Your task to perform on an android device: open app "eBay: The shopping marketplace" (install if not already installed) Image 0: 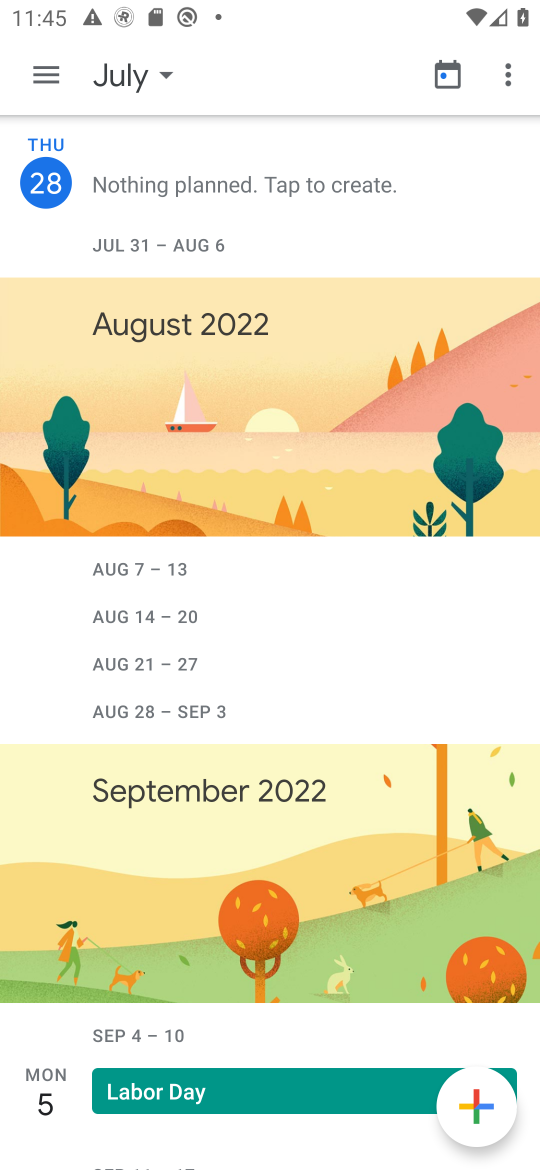
Step 0: press home button
Your task to perform on an android device: open app "eBay: The shopping marketplace" (install if not already installed) Image 1: 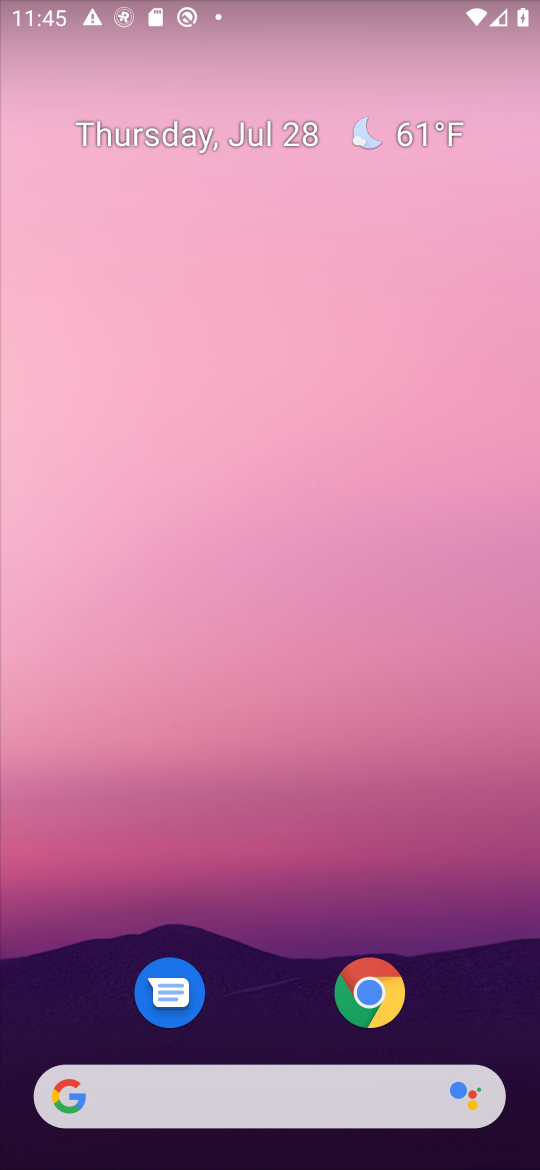
Step 1: drag from (199, 1098) to (274, 126)
Your task to perform on an android device: open app "eBay: The shopping marketplace" (install if not already installed) Image 2: 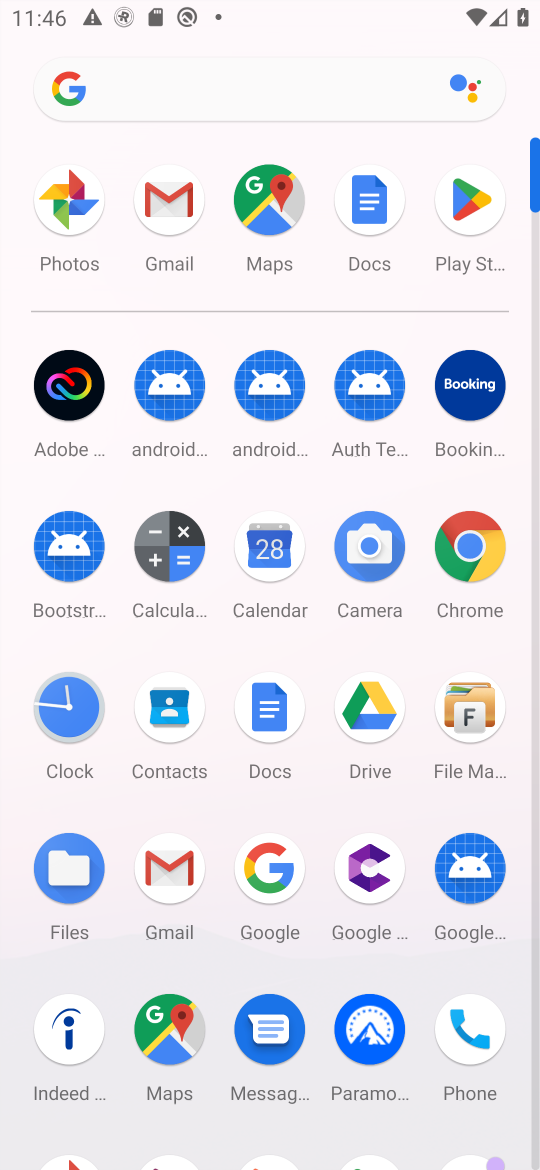
Step 2: click (467, 205)
Your task to perform on an android device: open app "eBay: The shopping marketplace" (install if not already installed) Image 3: 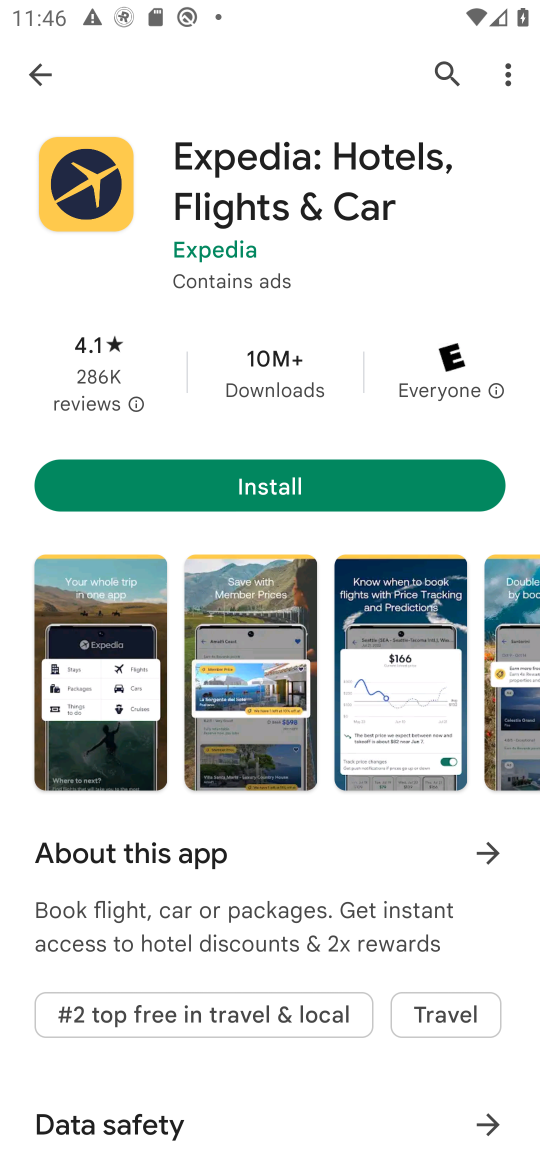
Step 3: click (443, 67)
Your task to perform on an android device: open app "eBay: The shopping marketplace" (install if not already installed) Image 4: 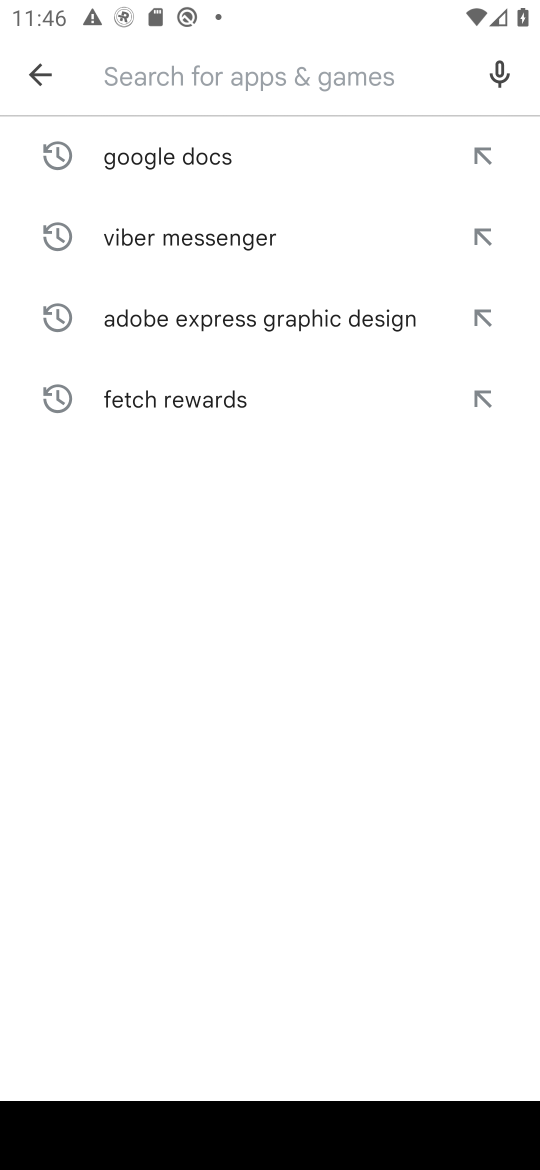
Step 4: type "eBay: The shopping marketplace"
Your task to perform on an android device: open app "eBay: The shopping marketplace" (install if not already installed) Image 5: 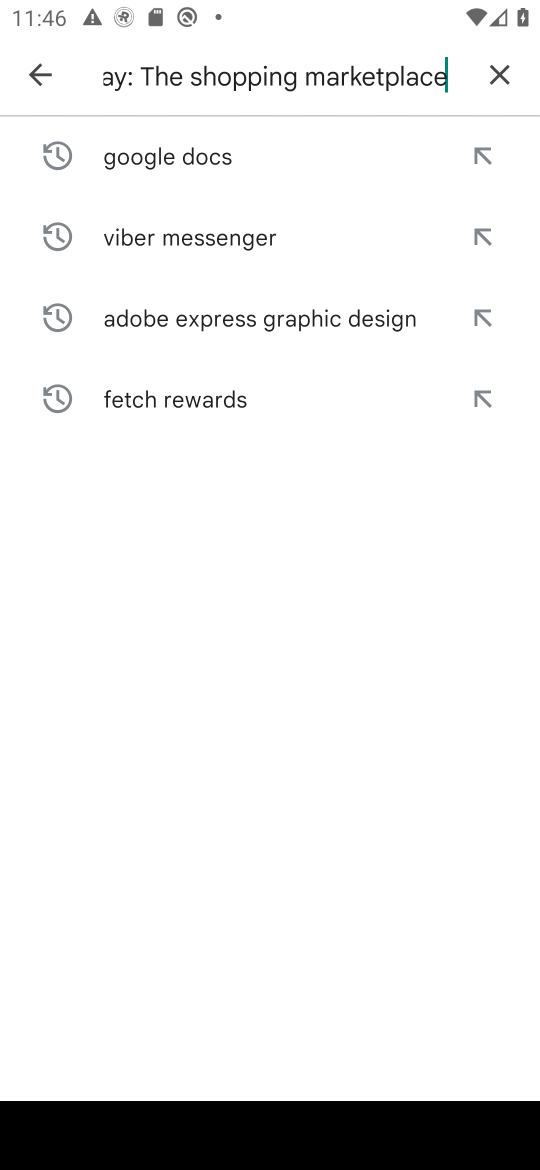
Step 5: type ""
Your task to perform on an android device: open app "eBay: The shopping marketplace" (install if not already installed) Image 6: 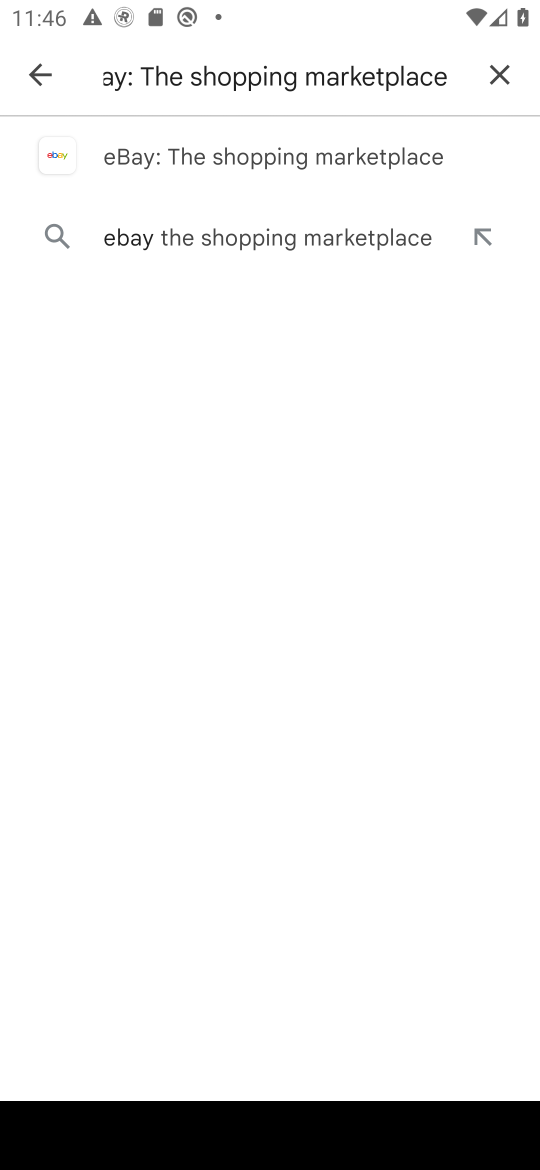
Step 6: click (394, 155)
Your task to perform on an android device: open app "eBay: The shopping marketplace" (install if not already installed) Image 7: 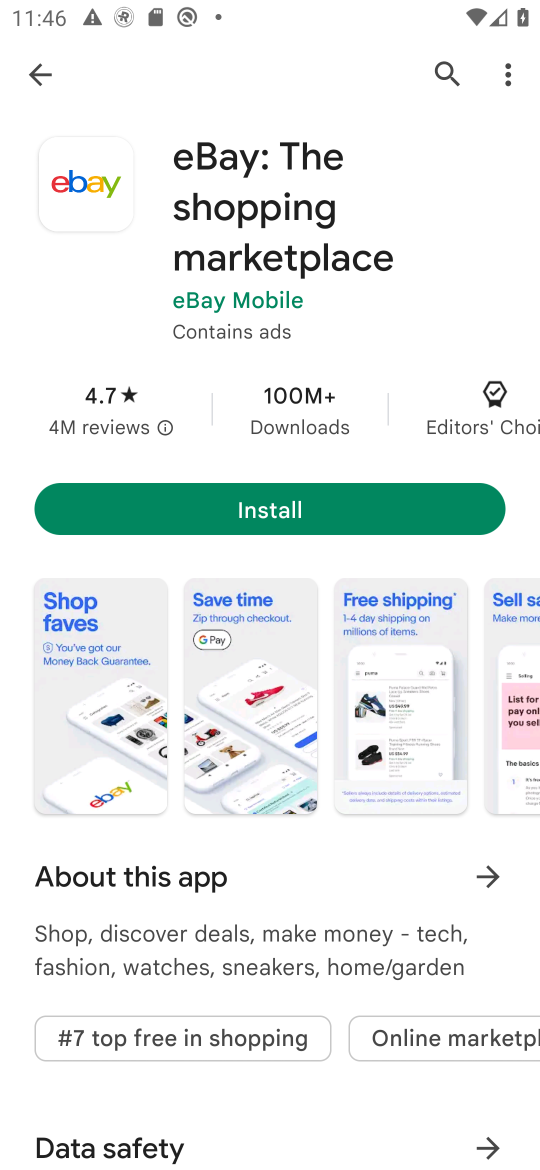
Step 7: click (268, 505)
Your task to perform on an android device: open app "eBay: The shopping marketplace" (install if not already installed) Image 8: 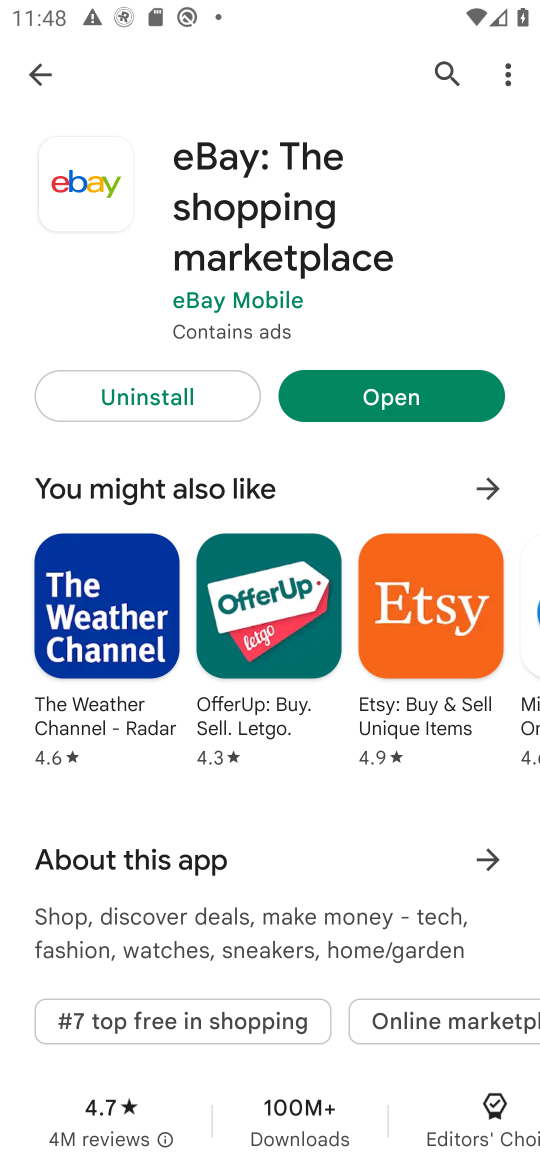
Step 8: click (373, 401)
Your task to perform on an android device: open app "eBay: The shopping marketplace" (install if not already installed) Image 9: 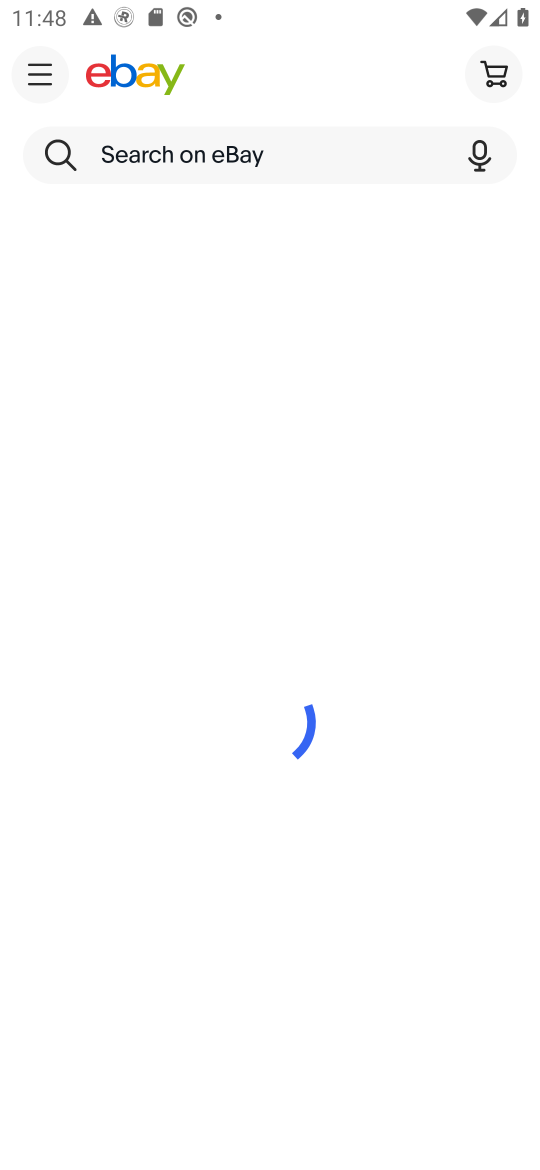
Step 9: task complete